Your task to perform on an android device: What's the weather today? Image 0: 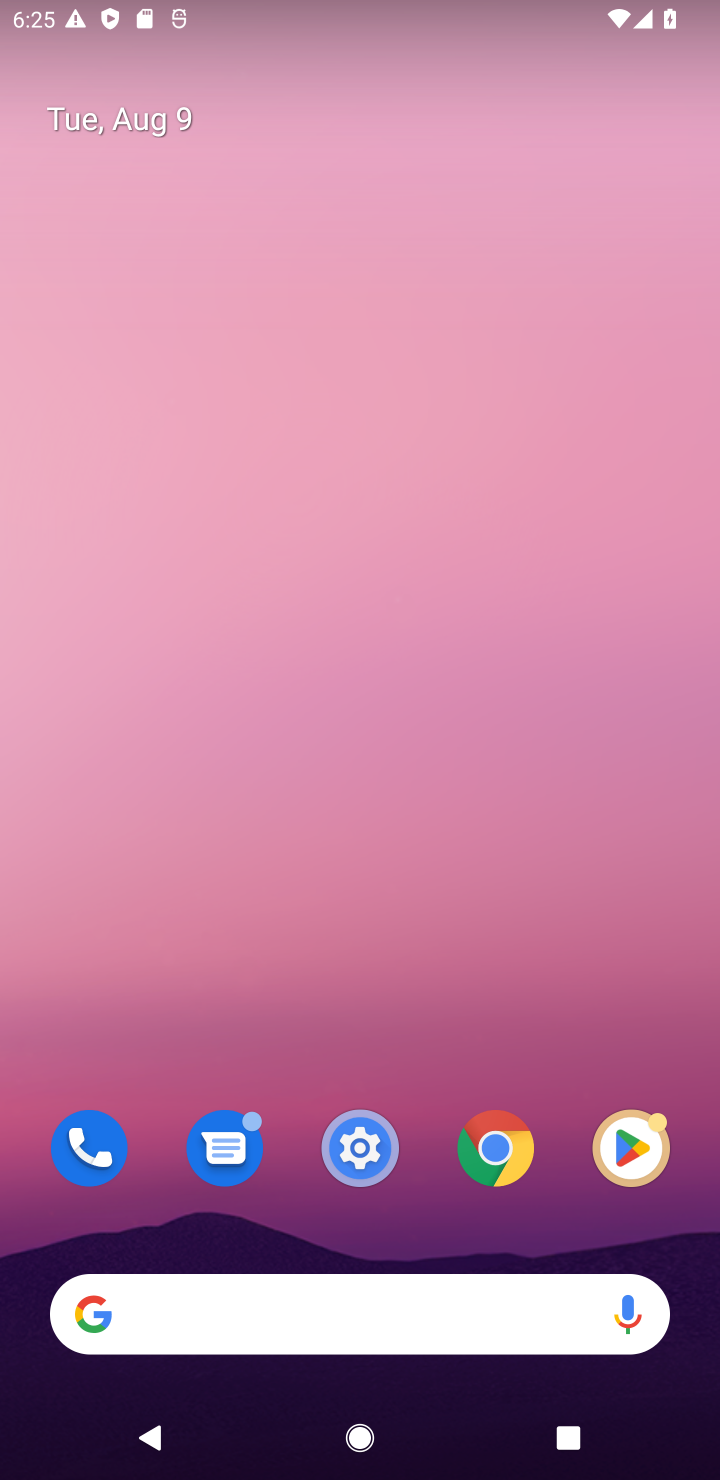
Step 0: drag from (423, 866) to (472, 113)
Your task to perform on an android device: What's the weather today? Image 1: 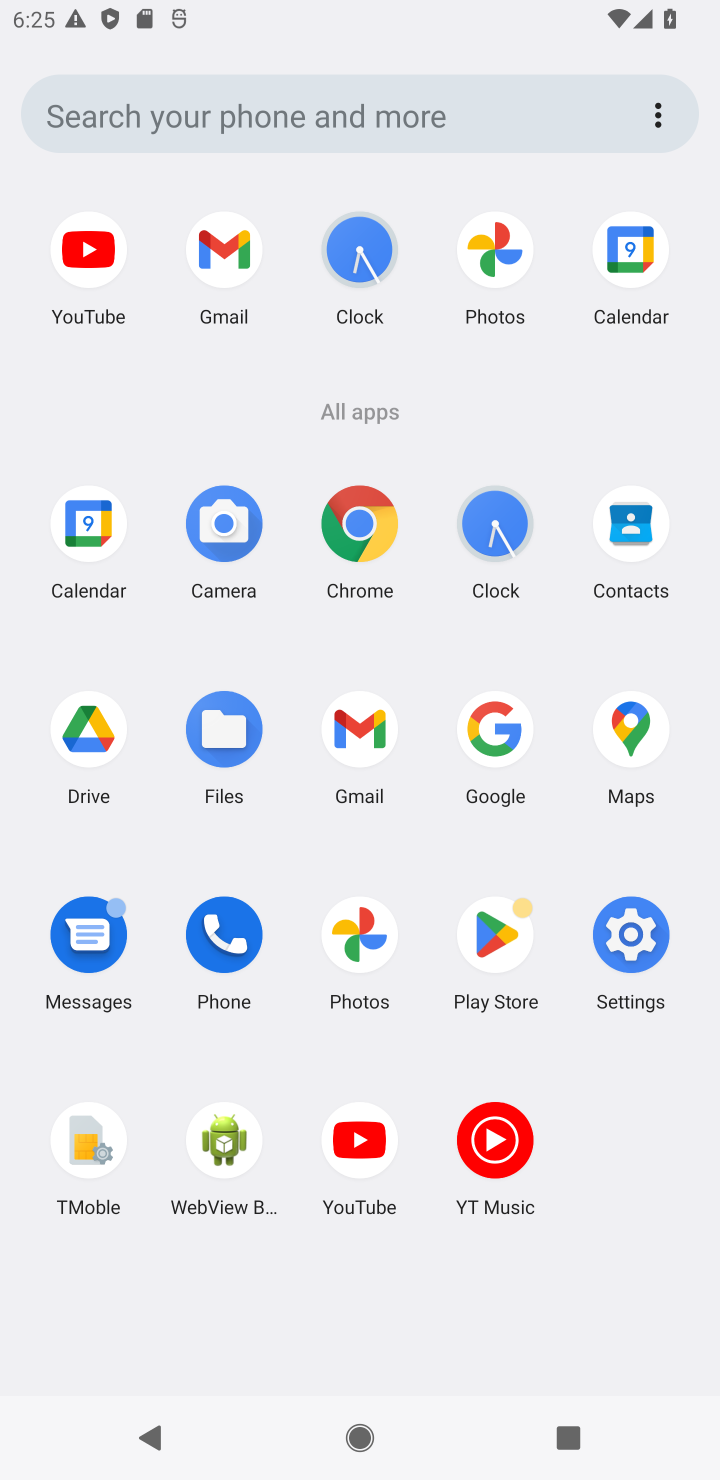
Step 1: click (380, 503)
Your task to perform on an android device: What's the weather today? Image 2: 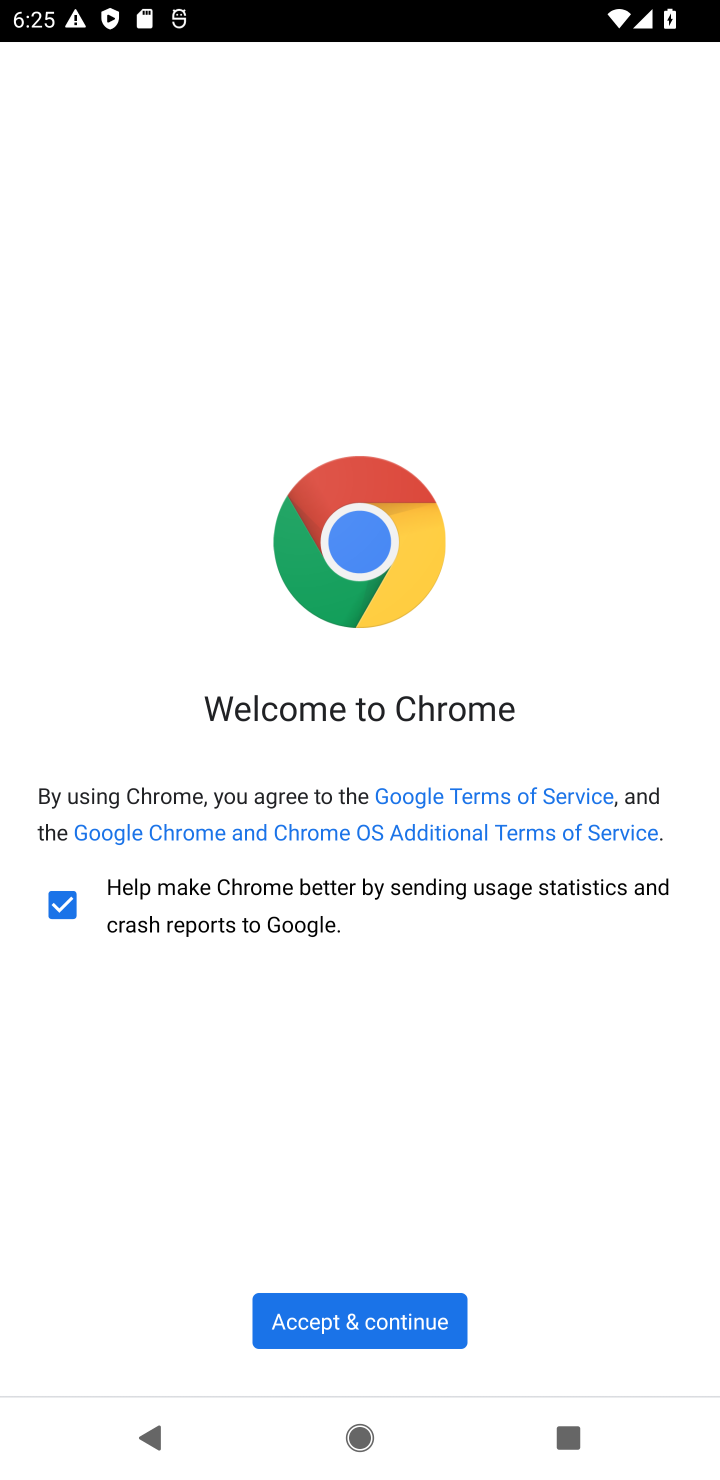
Step 2: click (342, 1307)
Your task to perform on an android device: What's the weather today? Image 3: 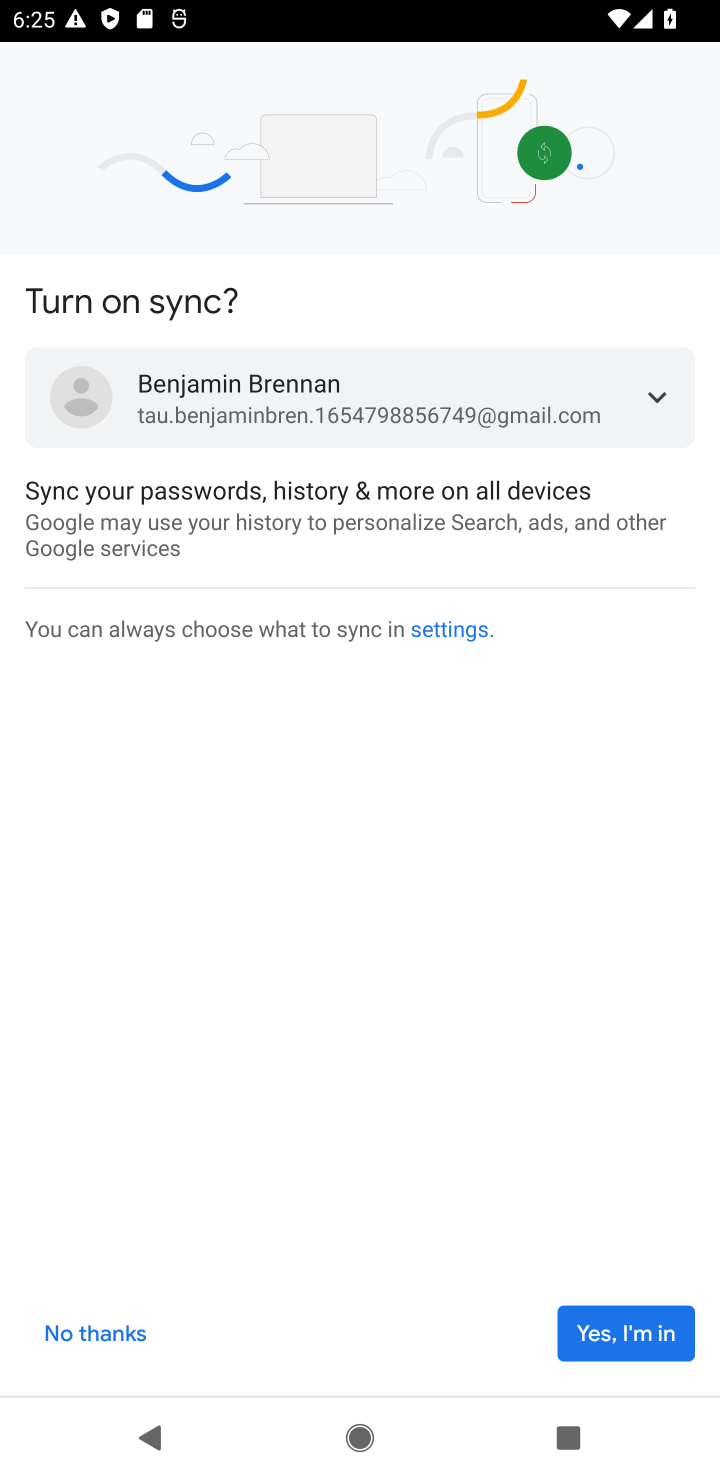
Step 3: click (669, 1337)
Your task to perform on an android device: What's the weather today? Image 4: 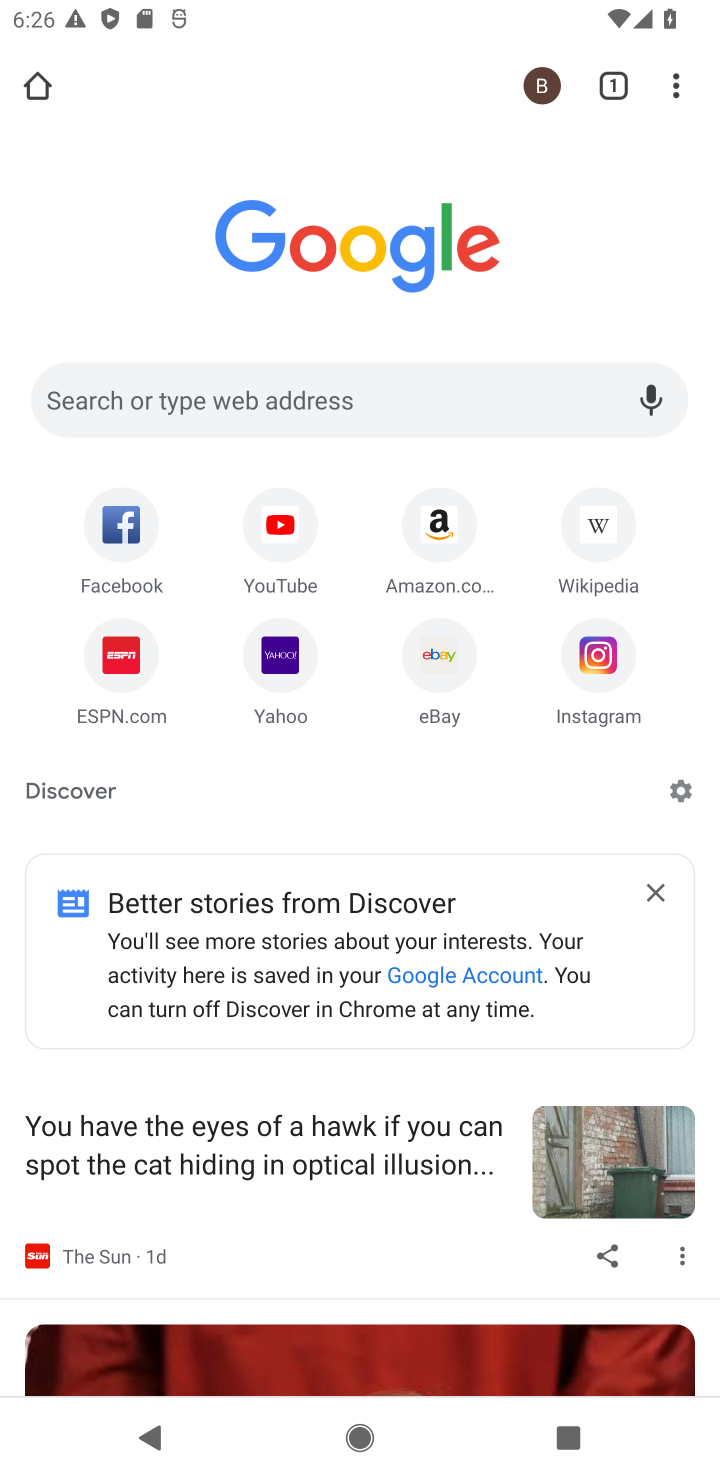
Step 4: click (382, 399)
Your task to perform on an android device: What's the weather today? Image 5: 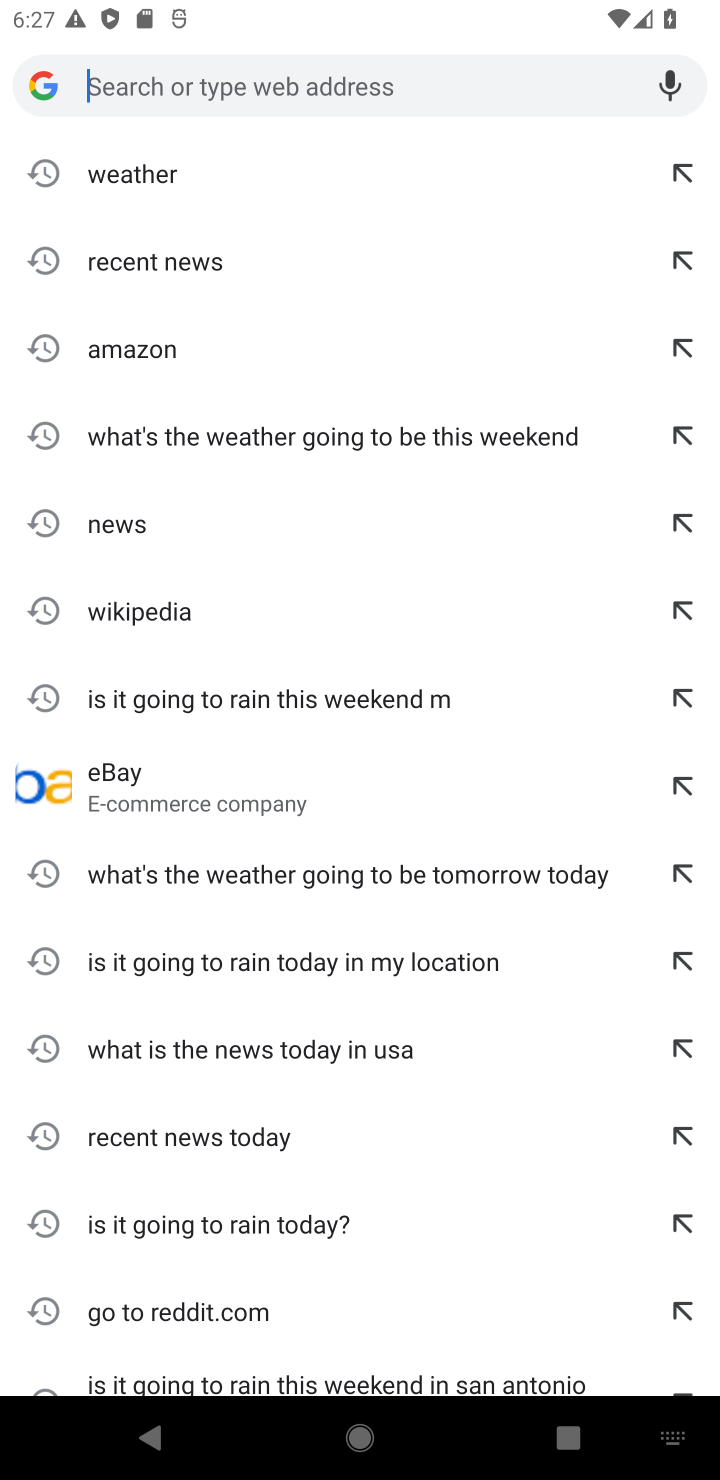
Step 5: type "What's the weather today?"
Your task to perform on an android device: What's the weather today? Image 6: 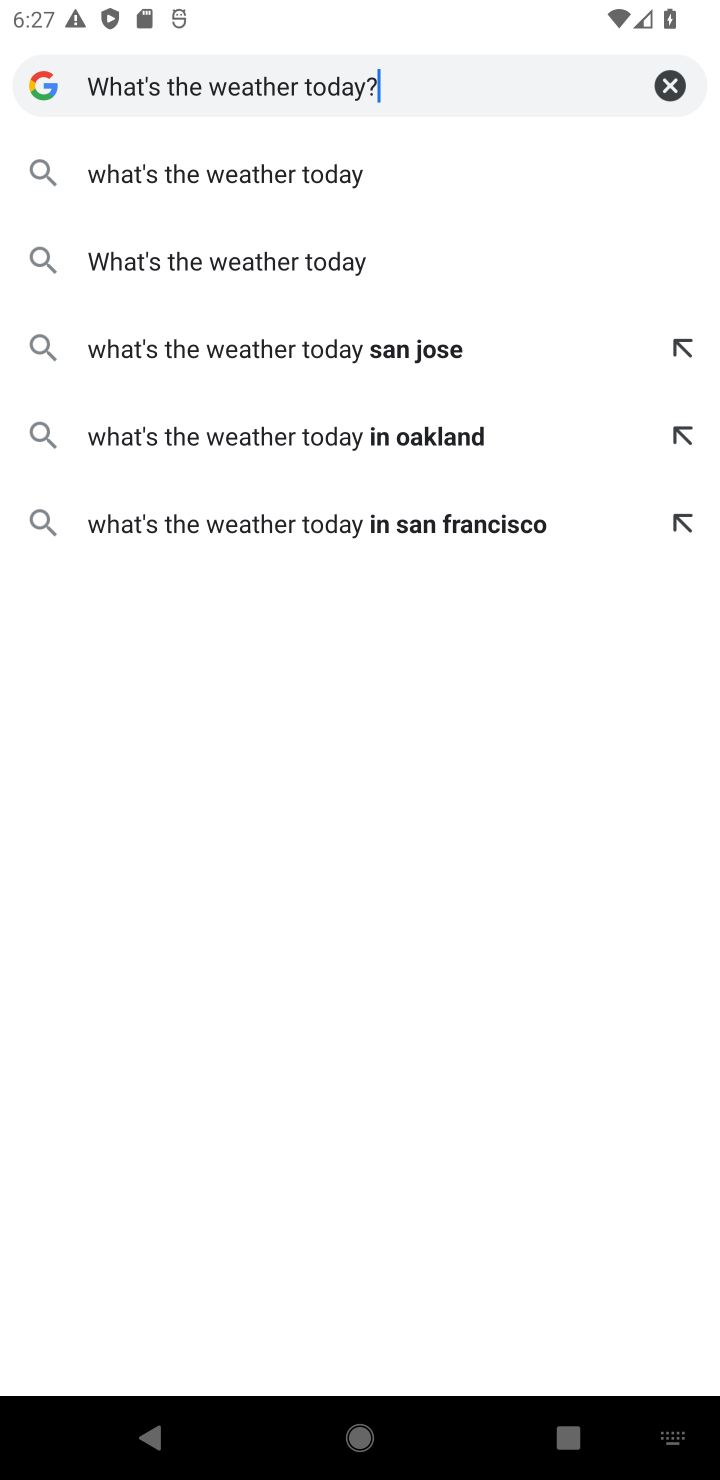
Step 6: type ""
Your task to perform on an android device: What's the weather today? Image 7: 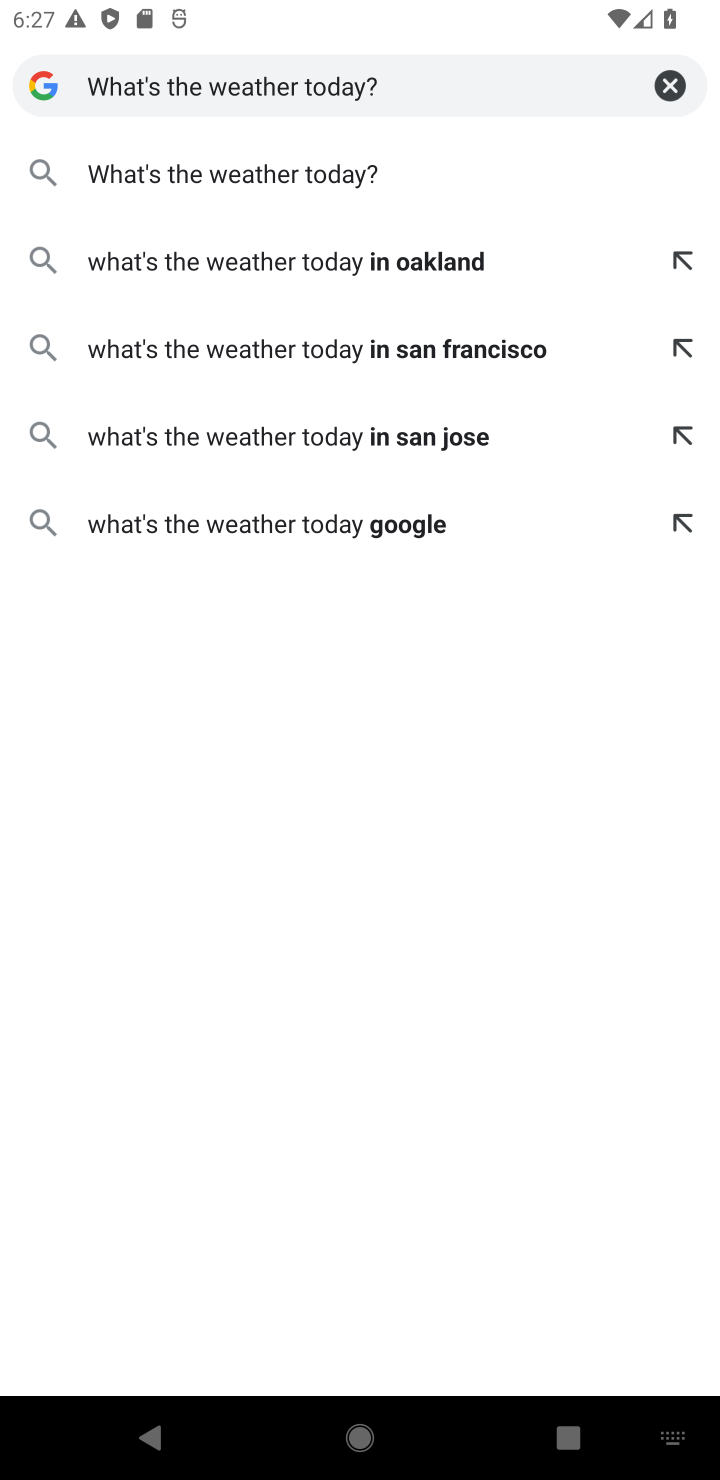
Step 7: click (263, 174)
Your task to perform on an android device: What's the weather today? Image 8: 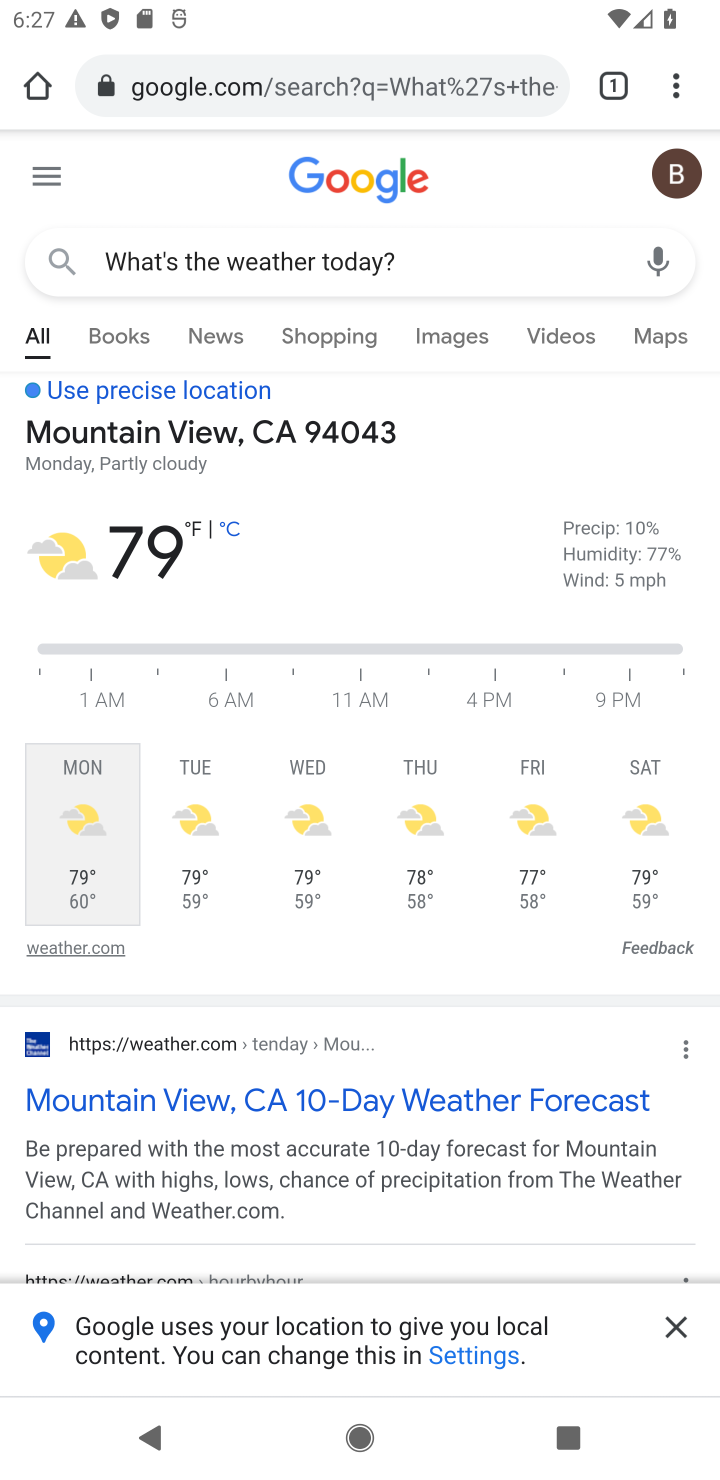
Step 8: task complete